Your task to perform on an android device: Open internet settings Image 0: 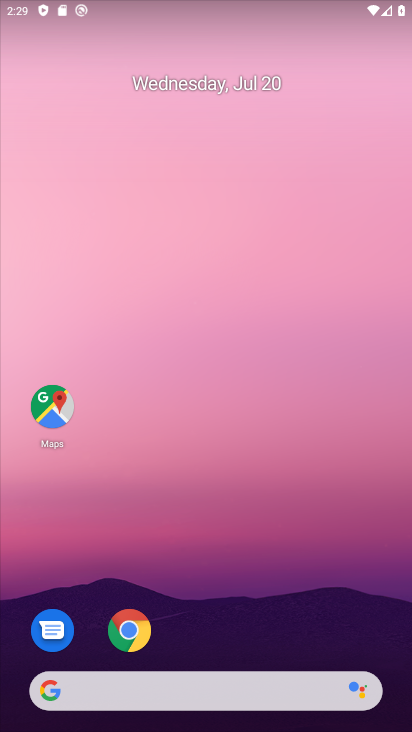
Step 0: drag from (263, 677) to (176, 97)
Your task to perform on an android device: Open internet settings Image 1: 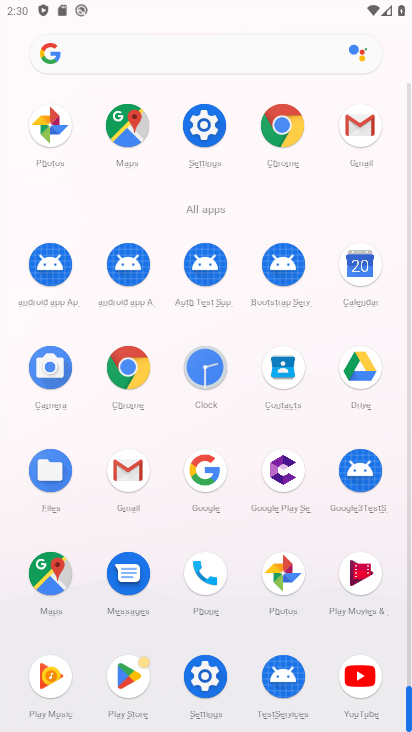
Step 1: click (206, 127)
Your task to perform on an android device: Open internet settings Image 2: 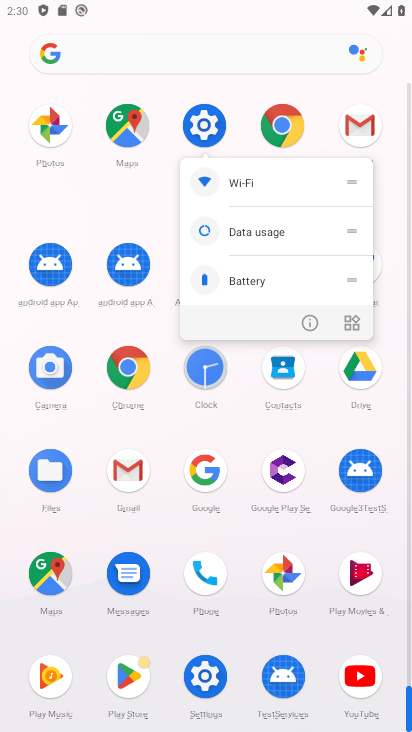
Step 2: click (208, 124)
Your task to perform on an android device: Open internet settings Image 3: 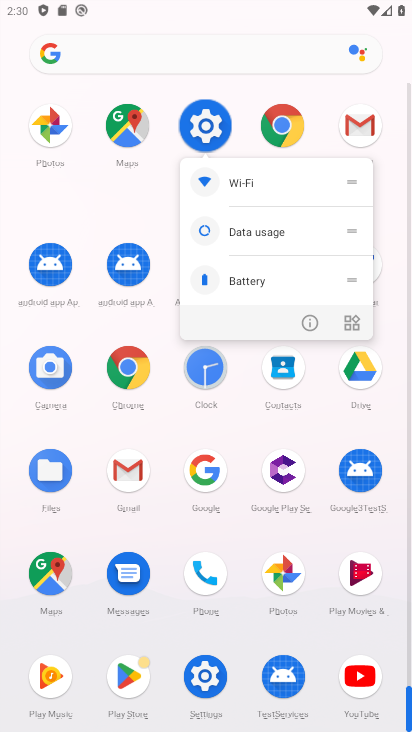
Step 3: click (208, 124)
Your task to perform on an android device: Open internet settings Image 4: 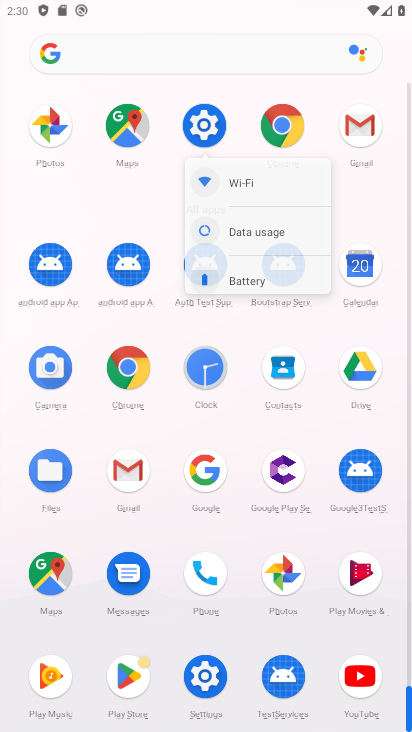
Step 4: click (208, 124)
Your task to perform on an android device: Open internet settings Image 5: 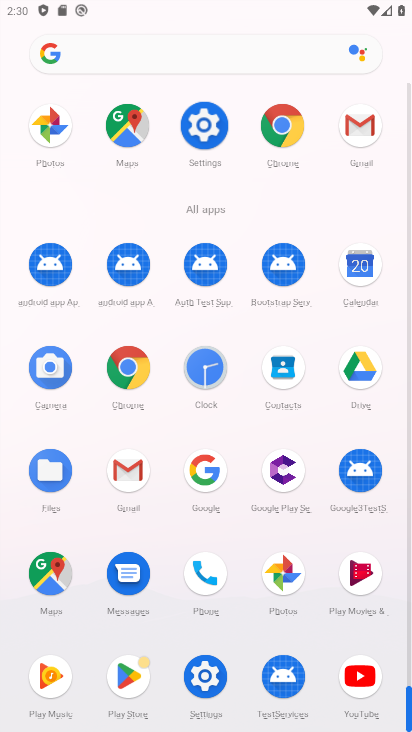
Step 5: click (208, 124)
Your task to perform on an android device: Open internet settings Image 6: 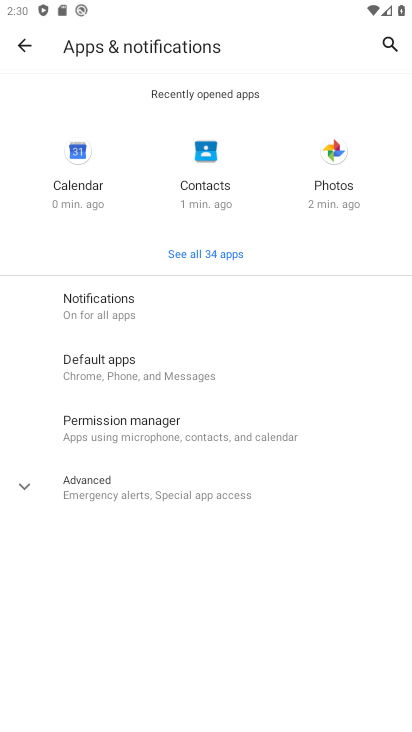
Step 6: click (15, 41)
Your task to perform on an android device: Open internet settings Image 7: 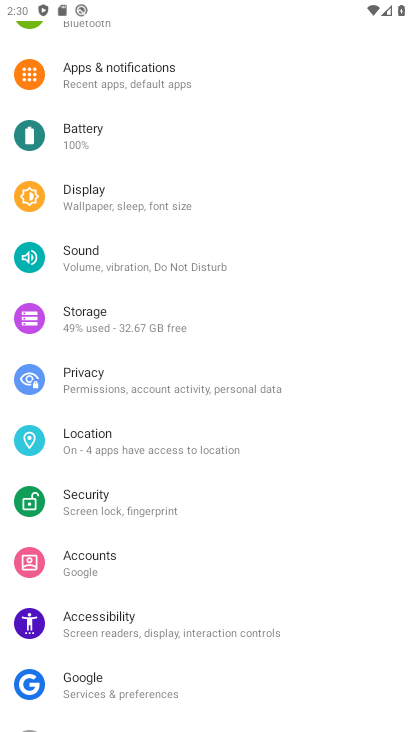
Step 7: drag from (145, 502) to (167, 330)
Your task to perform on an android device: Open internet settings Image 8: 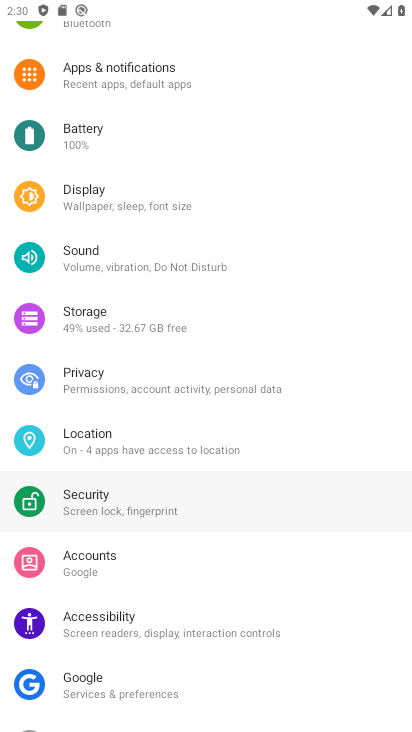
Step 8: drag from (184, 530) to (186, 325)
Your task to perform on an android device: Open internet settings Image 9: 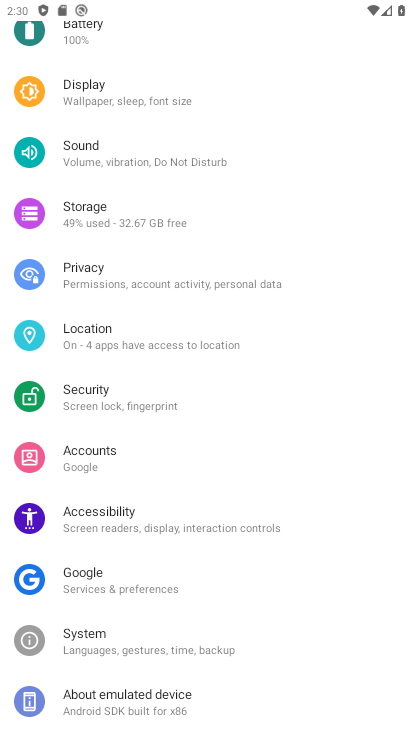
Step 9: drag from (98, 194) to (96, 588)
Your task to perform on an android device: Open internet settings Image 10: 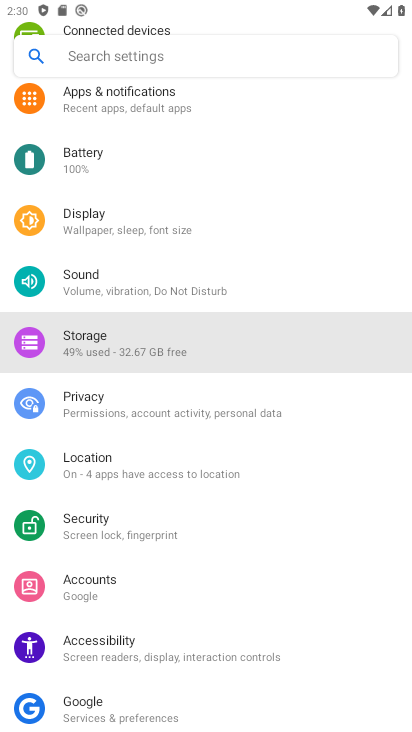
Step 10: drag from (102, 317) to (163, 456)
Your task to perform on an android device: Open internet settings Image 11: 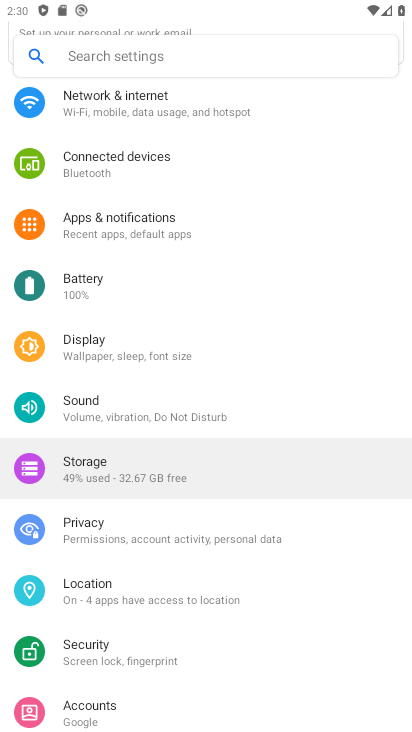
Step 11: drag from (149, 302) to (226, 571)
Your task to perform on an android device: Open internet settings Image 12: 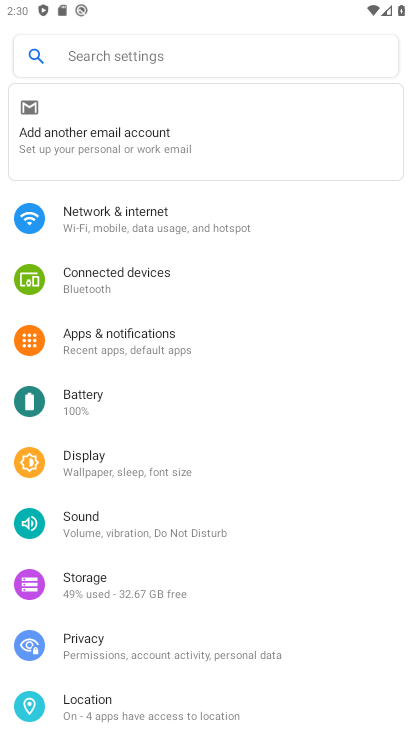
Step 12: click (113, 218)
Your task to perform on an android device: Open internet settings Image 13: 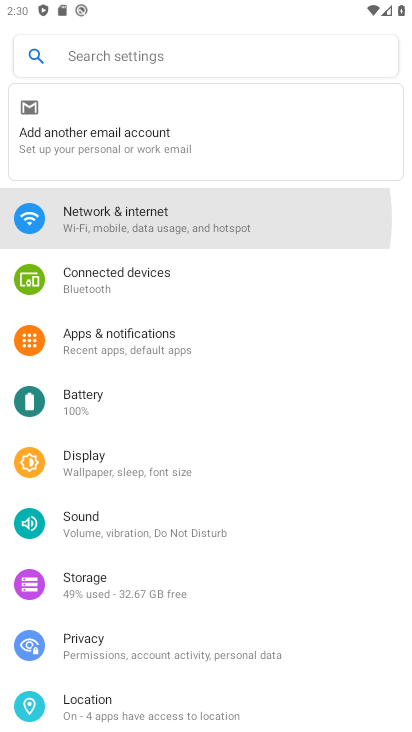
Step 13: click (113, 218)
Your task to perform on an android device: Open internet settings Image 14: 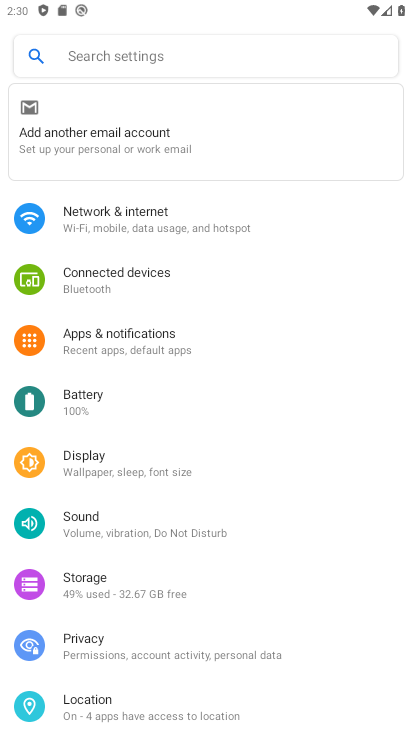
Step 14: click (115, 220)
Your task to perform on an android device: Open internet settings Image 15: 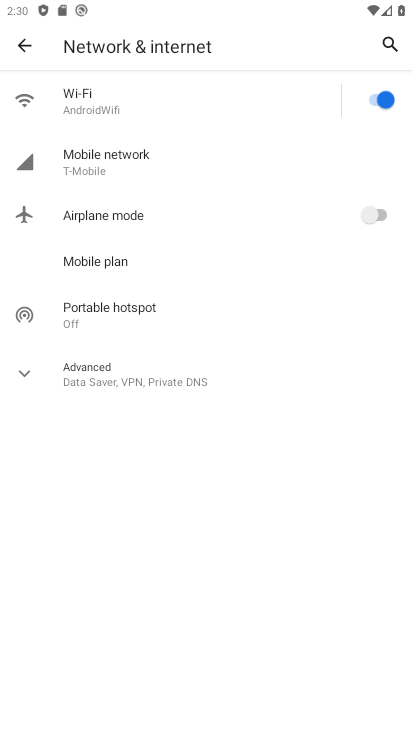
Step 15: task complete